Your task to perform on an android device: open chrome and create a bookmark for the current page Image 0: 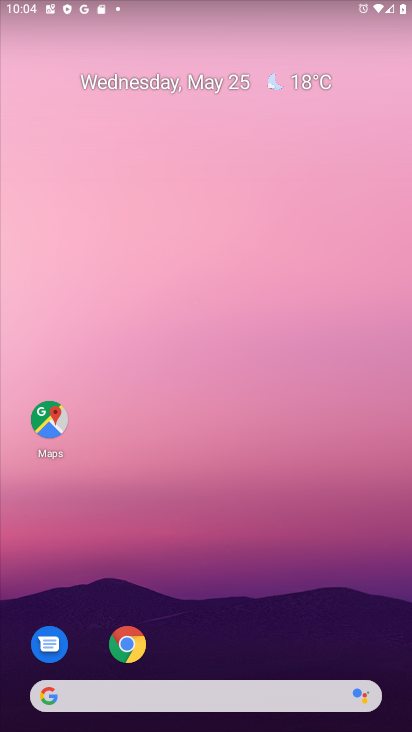
Step 0: press home button
Your task to perform on an android device: open chrome and create a bookmark for the current page Image 1: 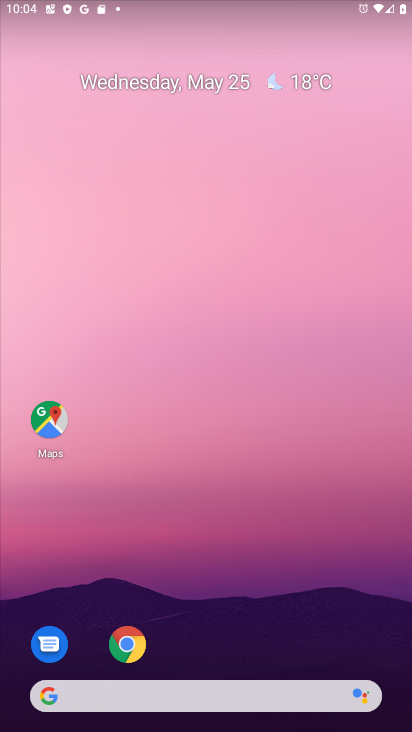
Step 1: click (126, 637)
Your task to perform on an android device: open chrome and create a bookmark for the current page Image 2: 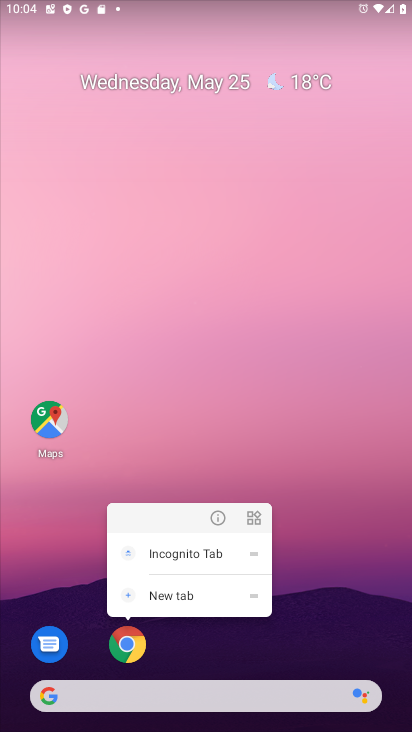
Step 2: click (126, 637)
Your task to perform on an android device: open chrome and create a bookmark for the current page Image 3: 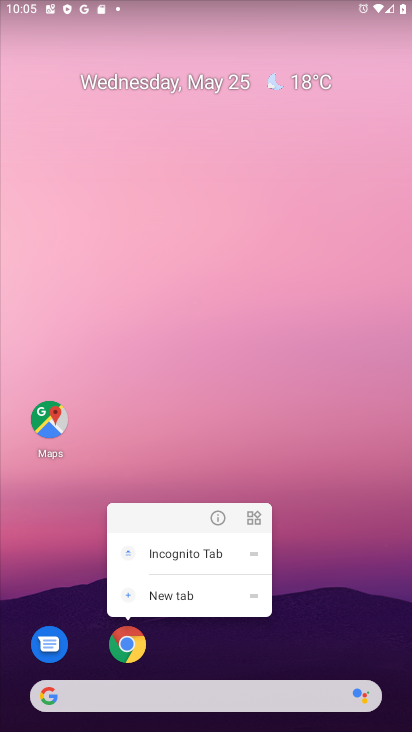
Step 3: click (126, 639)
Your task to perform on an android device: open chrome and create a bookmark for the current page Image 4: 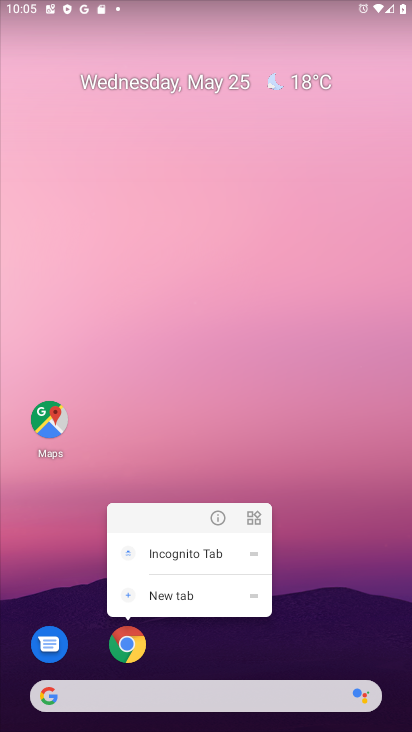
Step 4: click (123, 635)
Your task to perform on an android device: open chrome and create a bookmark for the current page Image 5: 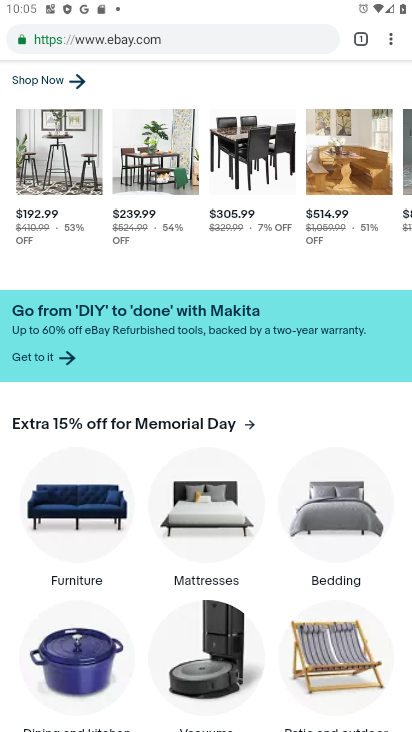
Step 5: click (392, 31)
Your task to perform on an android device: open chrome and create a bookmark for the current page Image 6: 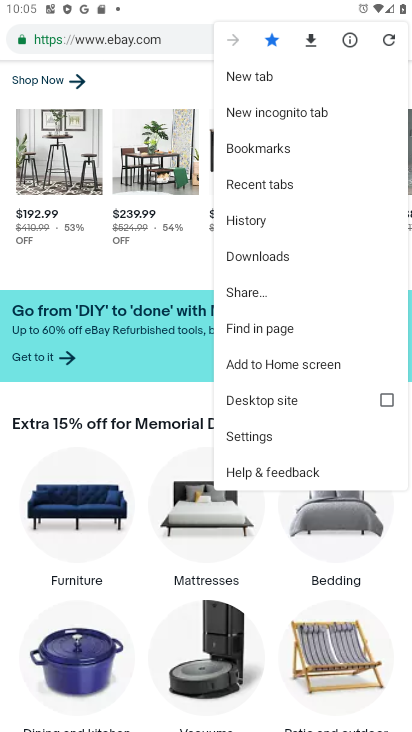
Step 6: click (295, 145)
Your task to perform on an android device: open chrome and create a bookmark for the current page Image 7: 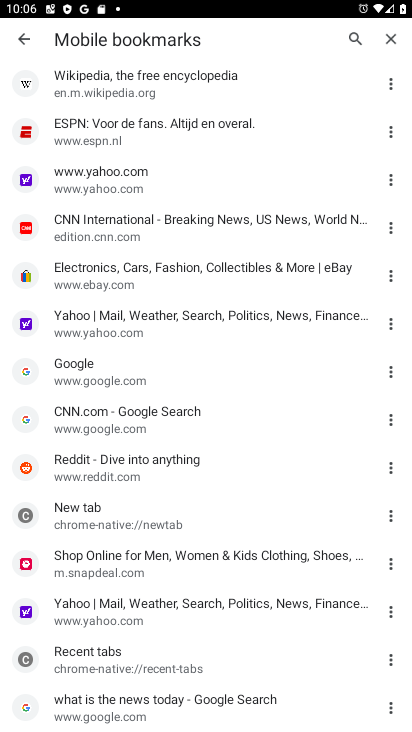
Step 7: click (15, 39)
Your task to perform on an android device: open chrome and create a bookmark for the current page Image 8: 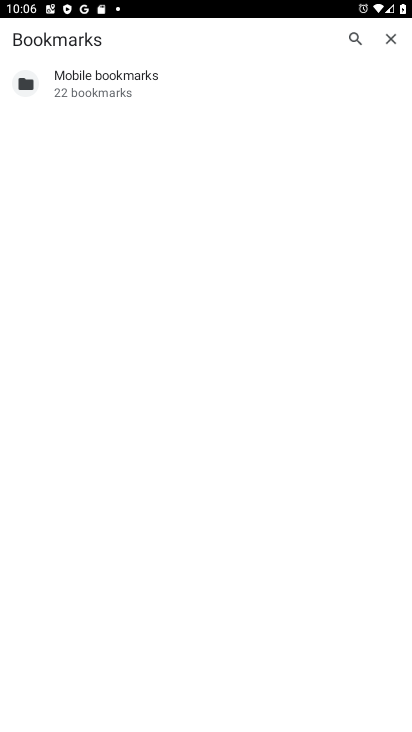
Step 8: click (391, 36)
Your task to perform on an android device: open chrome and create a bookmark for the current page Image 9: 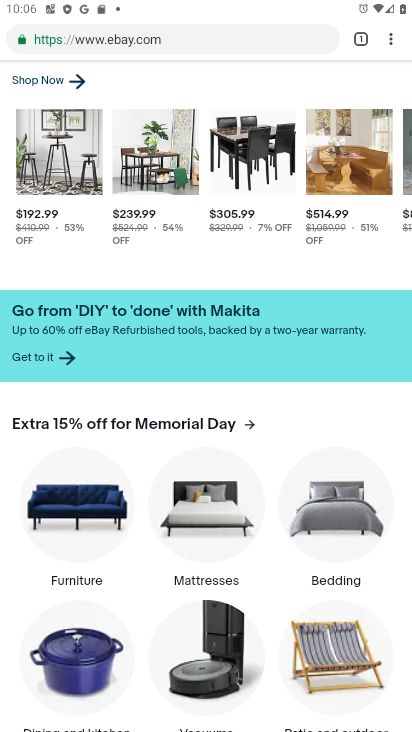
Step 9: click (391, 27)
Your task to perform on an android device: open chrome and create a bookmark for the current page Image 10: 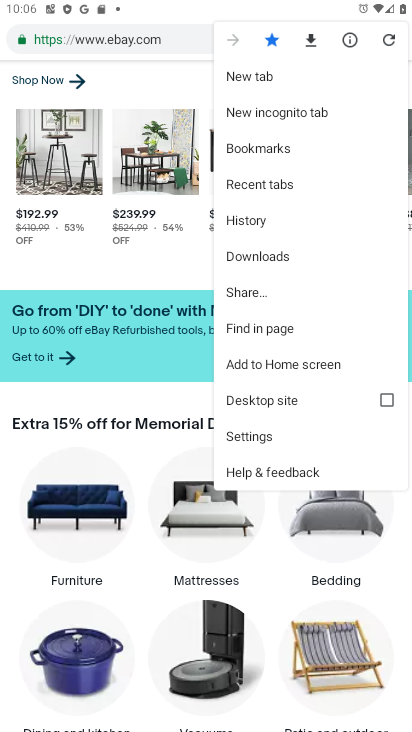
Step 10: task complete